Your task to perform on an android device: Open Android settings Image 0: 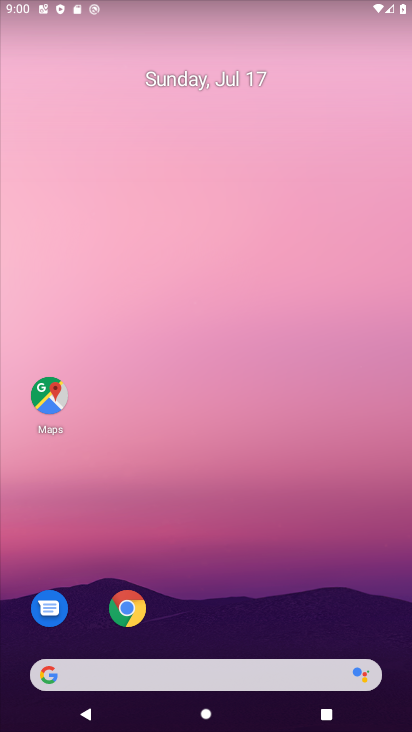
Step 0: drag from (206, 673) to (199, 186)
Your task to perform on an android device: Open Android settings Image 1: 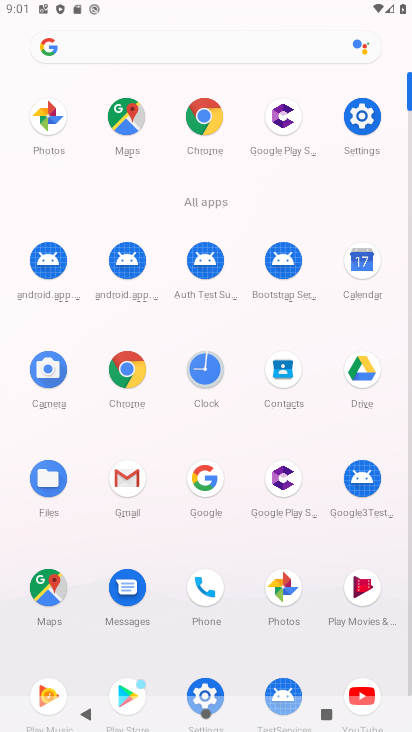
Step 1: click (361, 117)
Your task to perform on an android device: Open Android settings Image 2: 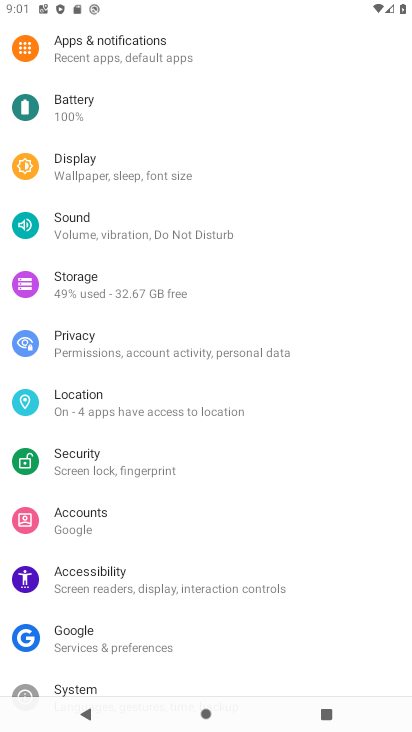
Step 2: task complete